Your task to perform on an android device: turn on showing notifications on the lock screen Image 0: 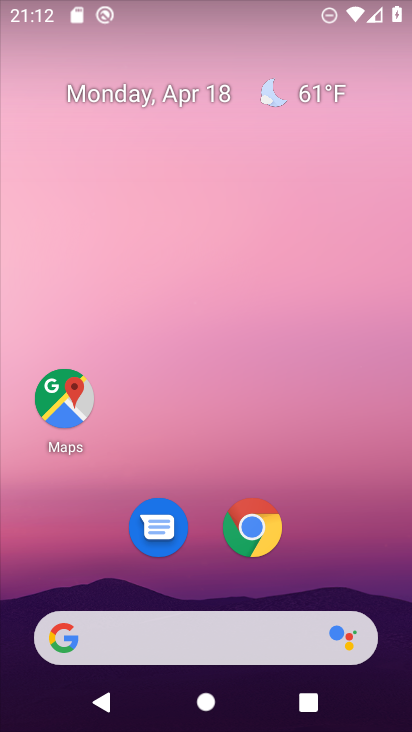
Step 0: drag from (243, 10) to (202, 535)
Your task to perform on an android device: turn on showing notifications on the lock screen Image 1: 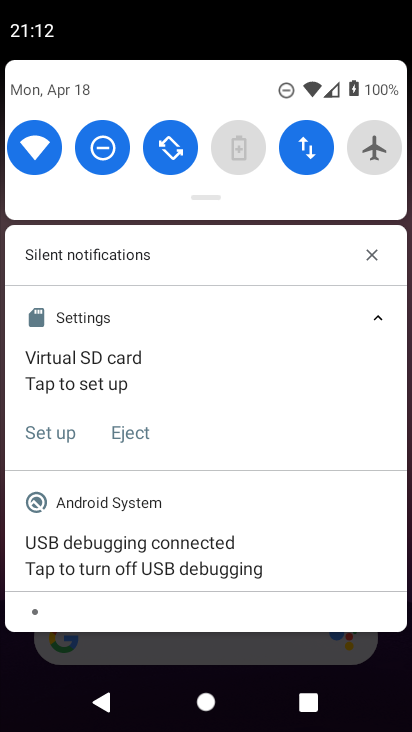
Step 1: drag from (219, 72) to (193, 683)
Your task to perform on an android device: turn on showing notifications on the lock screen Image 2: 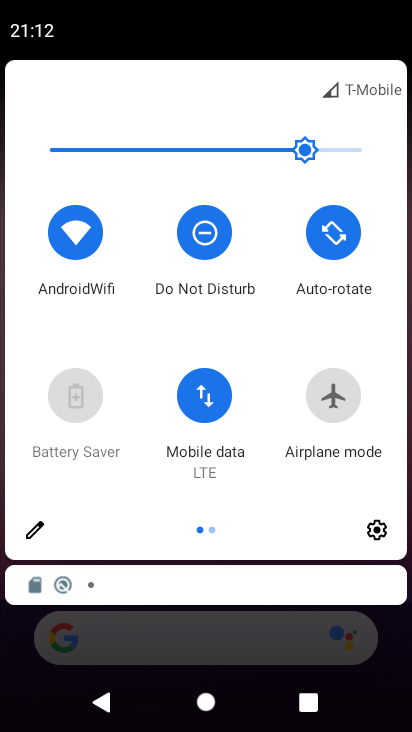
Step 2: click (369, 531)
Your task to perform on an android device: turn on showing notifications on the lock screen Image 3: 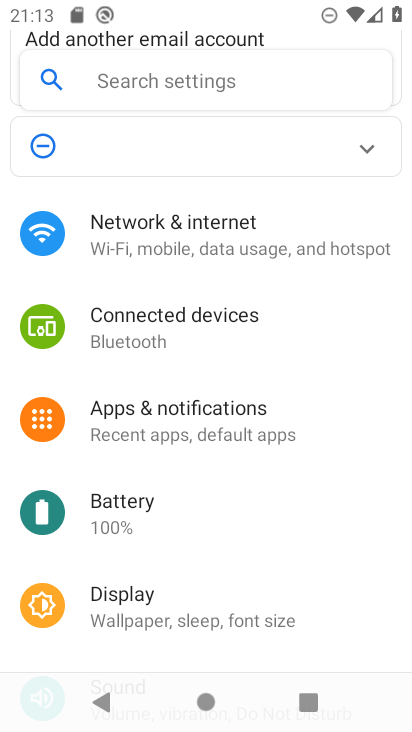
Step 3: click (114, 440)
Your task to perform on an android device: turn on showing notifications on the lock screen Image 4: 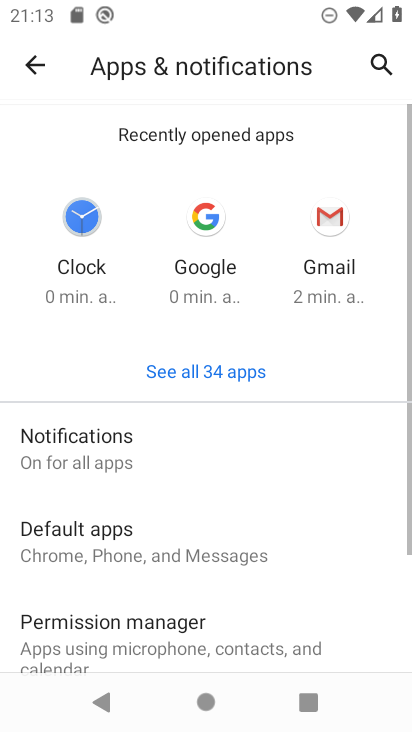
Step 4: drag from (207, 619) to (246, 52)
Your task to perform on an android device: turn on showing notifications on the lock screen Image 5: 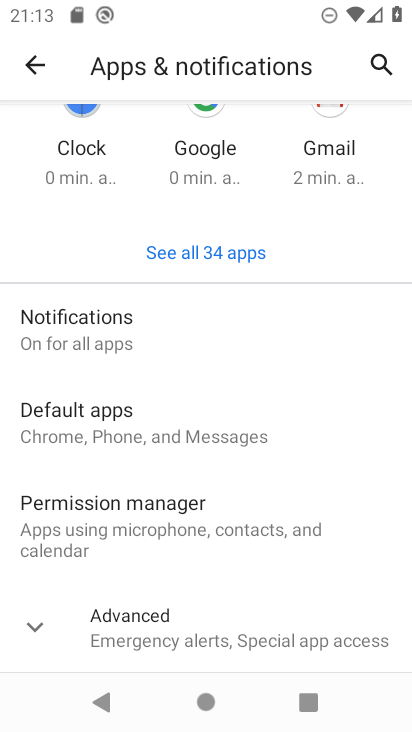
Step 5: click (139, 606)
Your task to perform on an android device: turn on showing notifications on the lock screen Image 6: 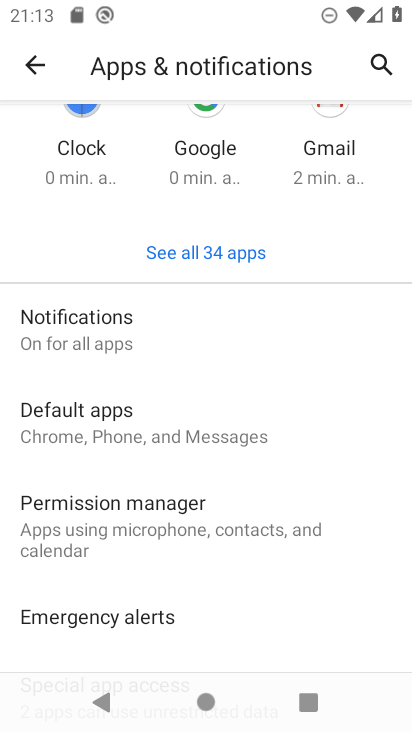
Step 6: drag from (139, 606) to (162, 120)
Your task to perform on an android device: turn on showing notifications on the lock screen Image 7: 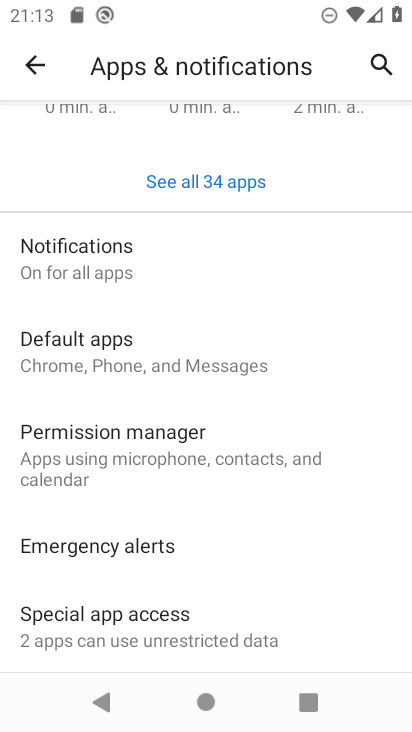
Step 7: click (190, 530)
Your task to perform on an android device: turn on showing notifications on the lock screen Image 8: 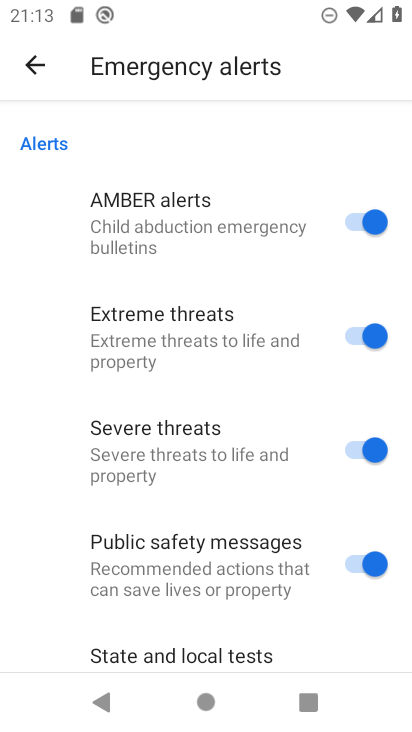
Step 8: click (36, 68)
Your task to perform on an android device: turn on showing notifications on the lock screen Image 9: 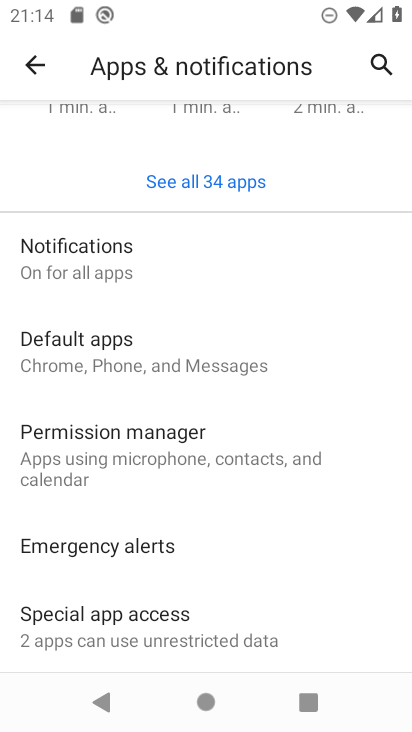
Step 9: click (249, 269)
Your task to perform on an android device: turn on showing notifications on the lock screen Image 10: 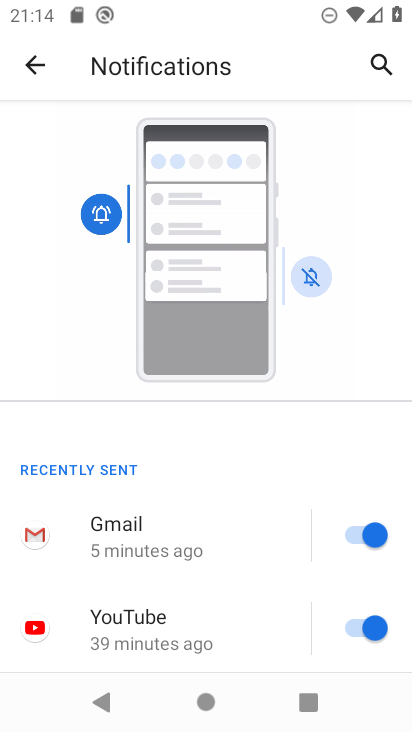
Step 10: drag from (133, 651) to (192, 138)
Your task to perform on an android device: turn on showing notifications on the lock screen Image 11: 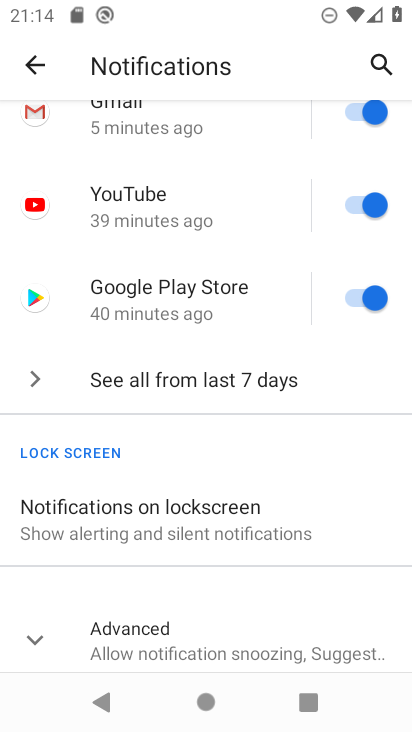
Step 11: click (273, 531)
Your task to perform on an android device: turn on showing notifications on the lock screen Image 12: 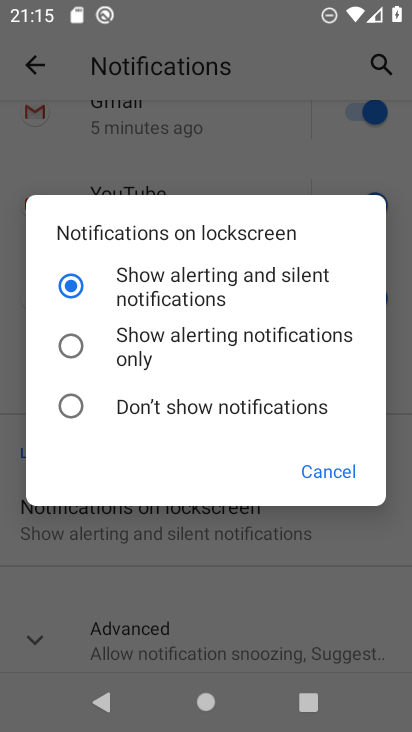
Step 12: task complete